Your task to perform on an android device: Check the news Image 0: 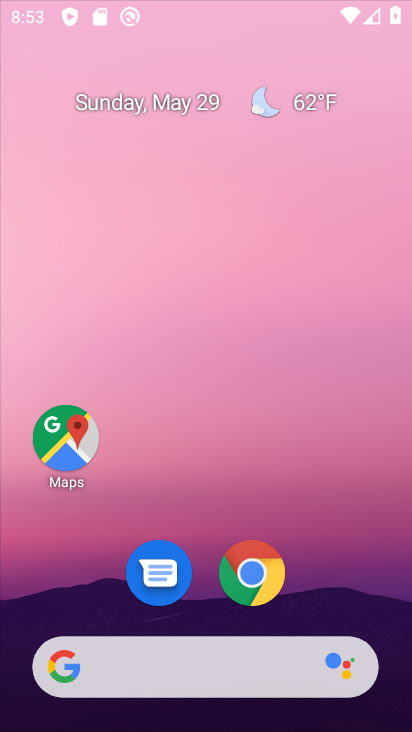
Step 0: press home button
Your task to perform on an android device: Check the news Image 1: 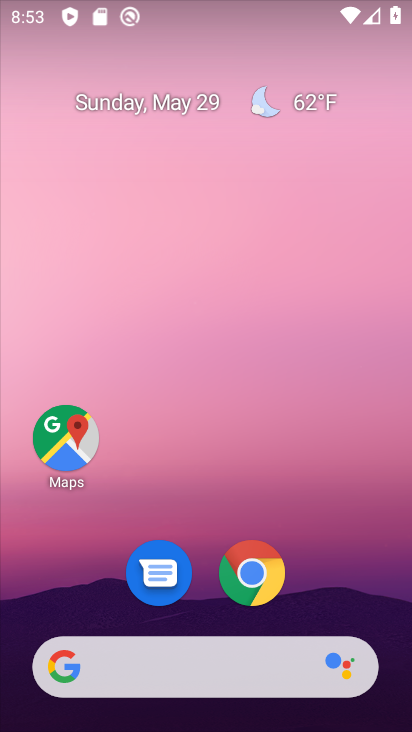
Step 1: click (57, 672)
Your task to perform on an android device: Check the news Image 2: 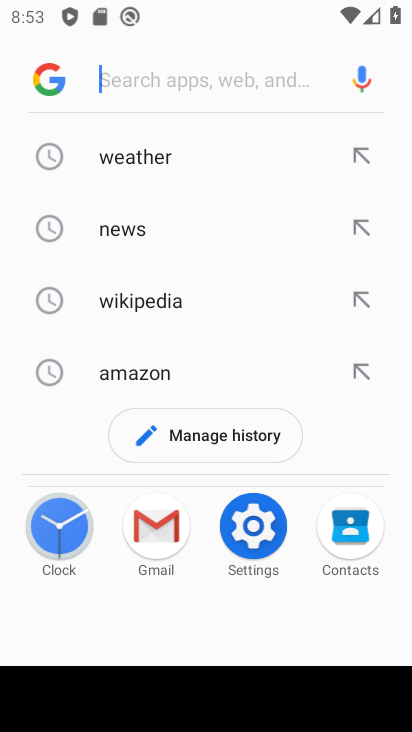
Step 2: click (121, 236)
Your task to perform on an android device: Check the news Image 3: 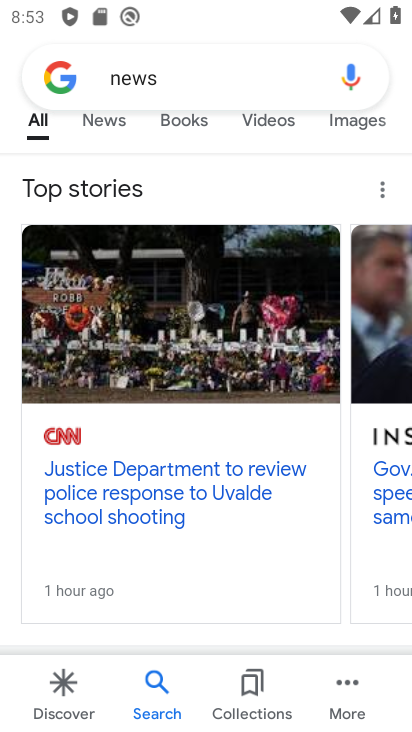
Step 3: task complete